Your task to perform on an android device: change the clock style Image 0: 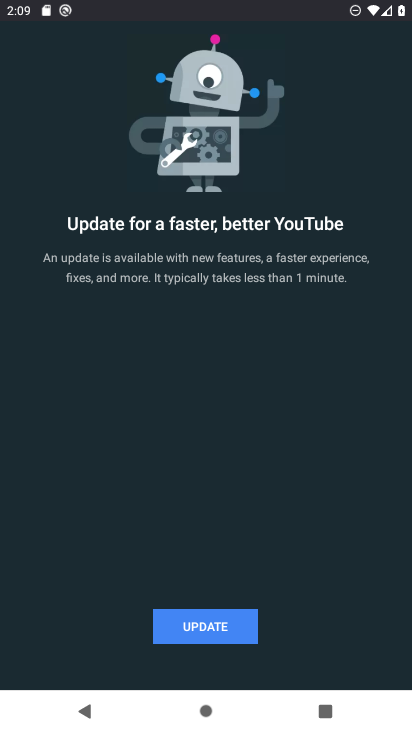
Step 0: press home button
Your task to perform on an android device: change the clock style Image 1: 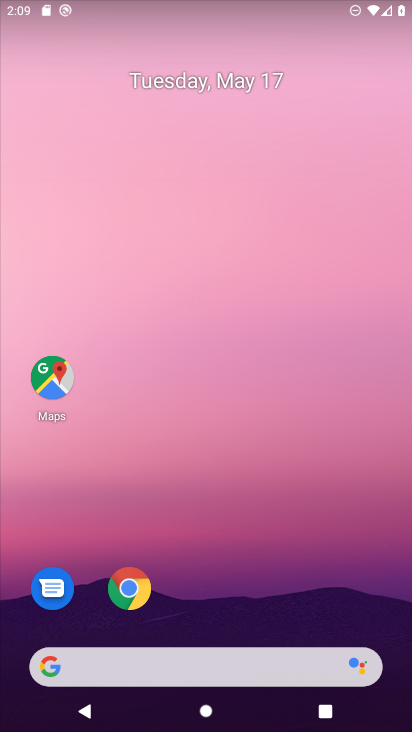
Step 1: drag from (203, 608) to (179, 204)
Your task to perform on an android device: change the clock style Image 2: 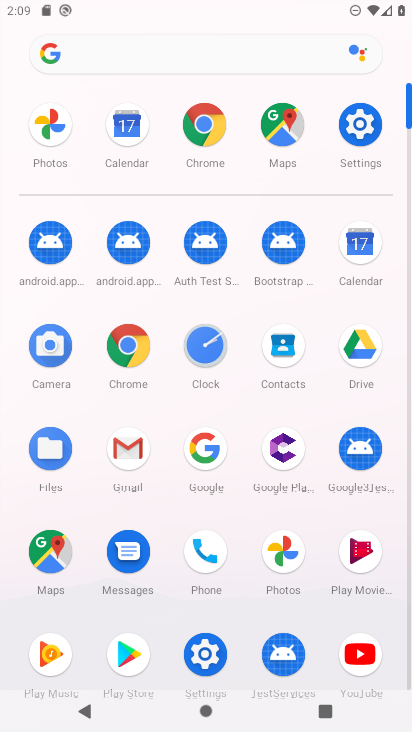
Step 2: click (212, 348)
Your task to perform on an android device: change the clock style Image 3: 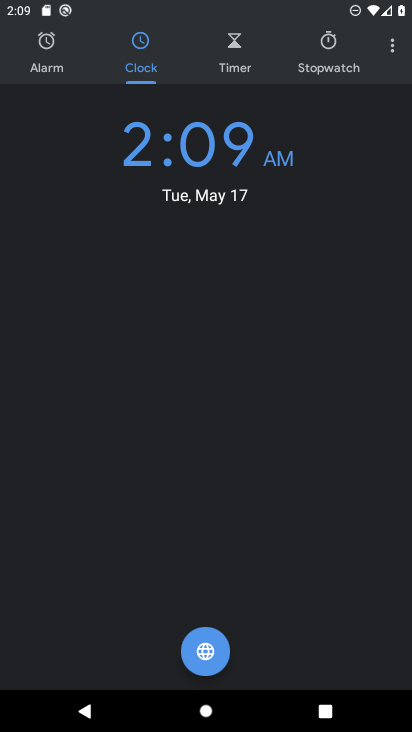
Step 3: click (396, 49)
Your task to perform on an android device: change the clock style Image 4: 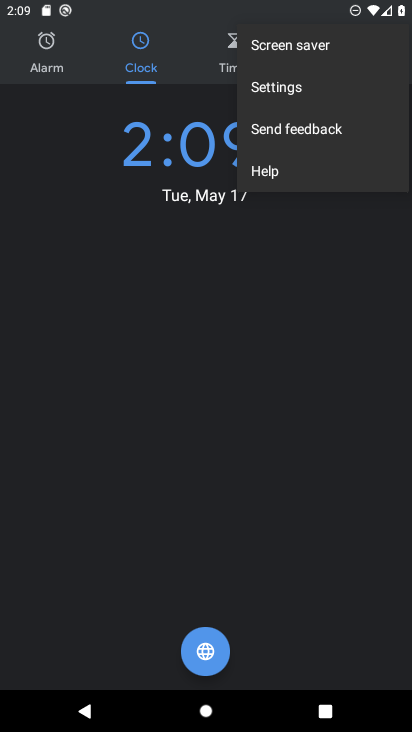
Step 4: click (276, 92)
Your task to perform on an android device: change the clock style Image 5: 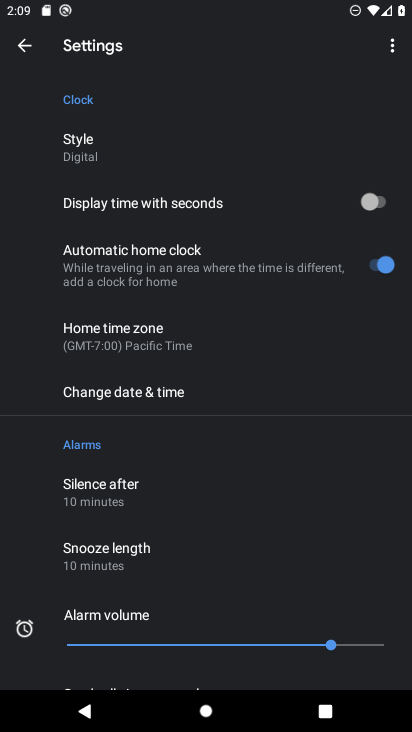
Step 5: click (91, 158)
Your task to perform on an android device: change the clock style Image 6: 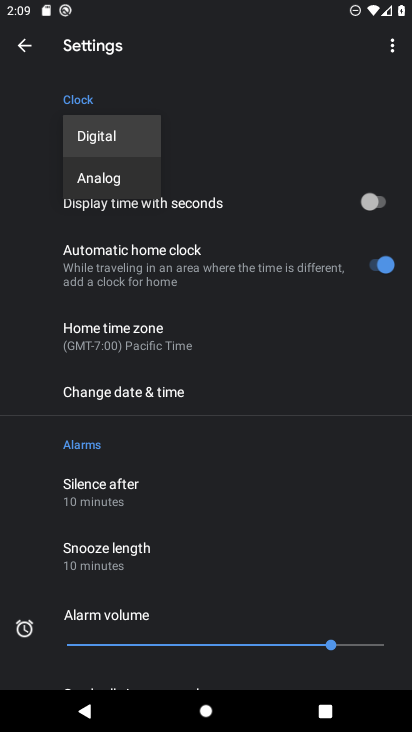
Step 6: click (103, 176)
Your task to perform on an android device: change the clock style Image 7: 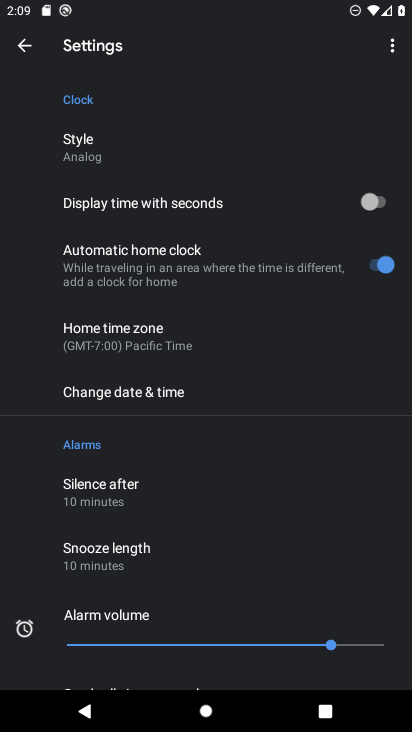
Step 7: task complete